Your task to perform on an android device: Go to privacy settings Image 0: 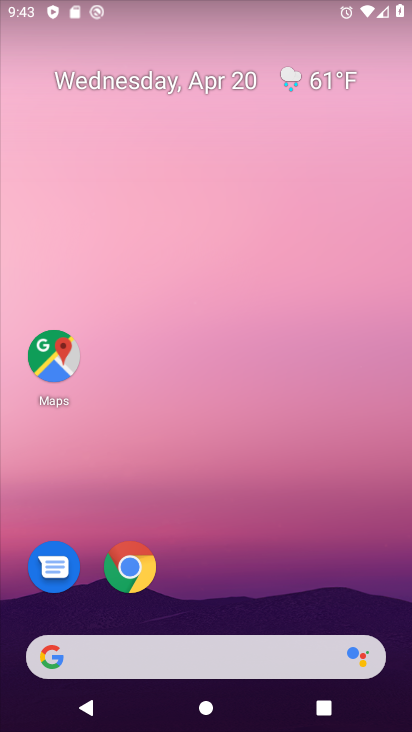
Step 0: click (138, 559)
Your task to perform on an android device: Go to privacy settings Image 1: 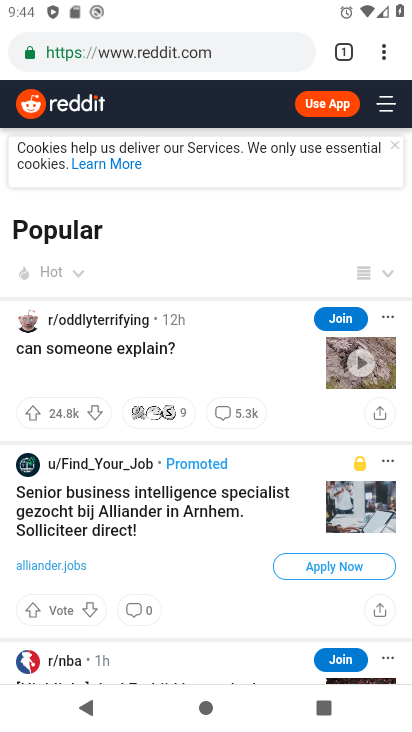
Step 1: drag from (379, 47) to (218, 606)
Your task to perform on an android device: Go to privacy settings Image 2: 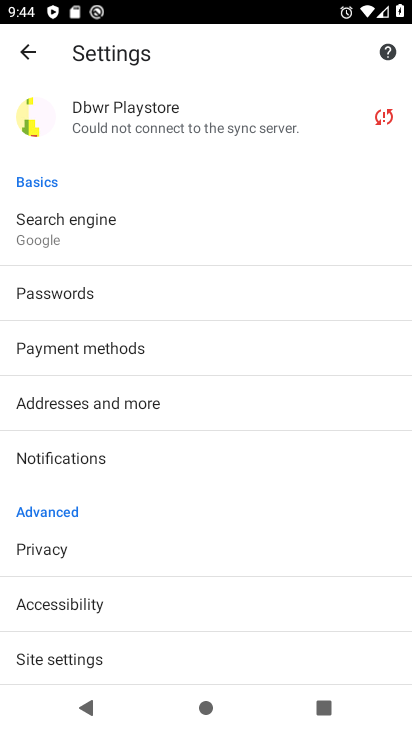
Step 2: click (88, 538)
Your task to perform on an android device: Go to privacy settings Image 3: 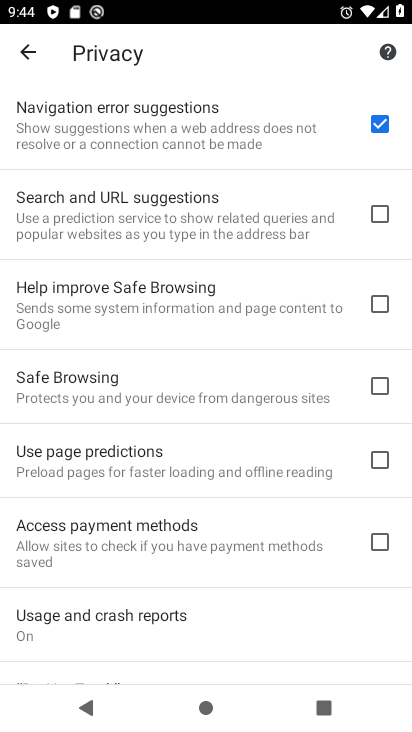
Step 3: task complete